Your task to perform on an android device: turn off data saver in the chrome app Image 0: 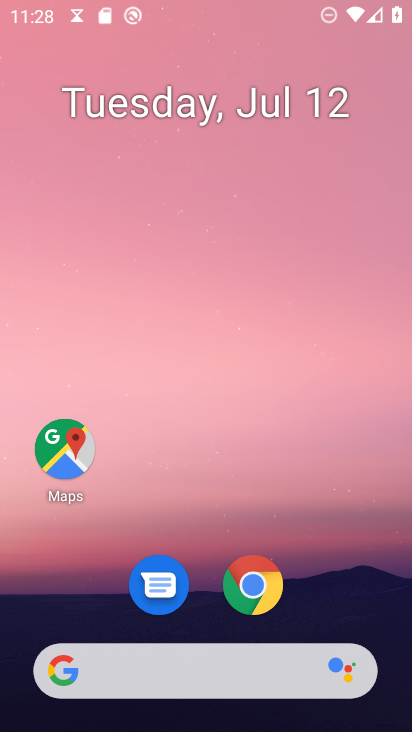
Step 0: press home button
Your task to perform on an android device: turn off data saver in the chrome app Image 1: 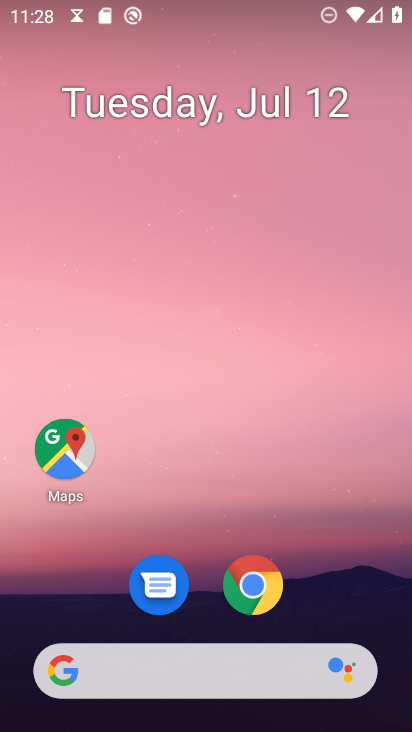
Step 1: click (259, 584)
Your task to perform on an android device: turn off data saver in the chrome app Image 2: 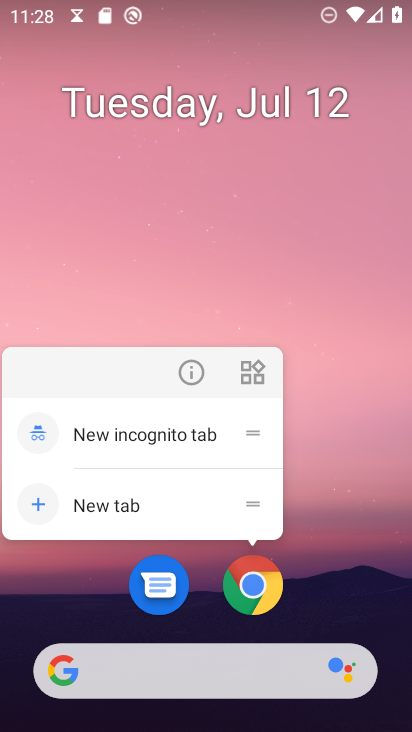
Step 2: click (259, 583)
Your task to perform on an android device: turn off data saver in the chrome app Image 3: 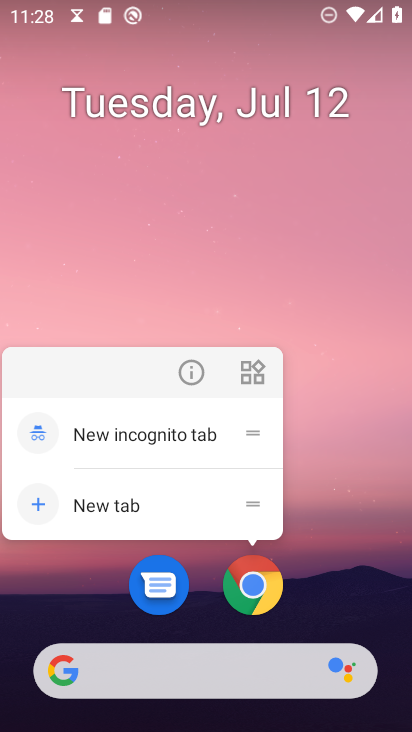
Step 3: click (242, 603)
Your task to perform on an android device: turn off data saver in the chrome app Image 4: 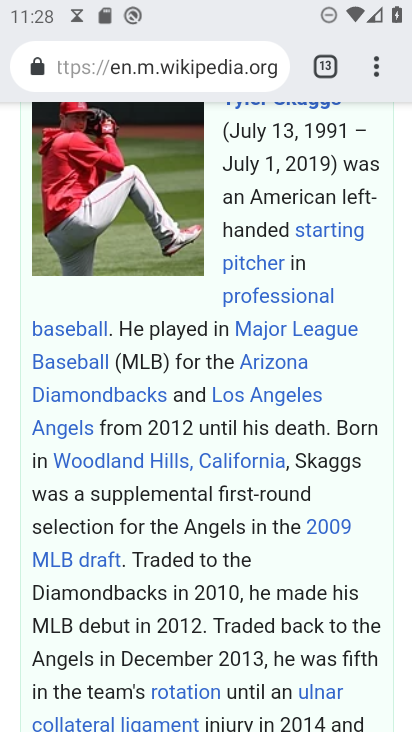
Step 4: drag from (373, 65) to (185, 587)
Your task to perform on an android device: turn off data saver in the chrome app Image 5: 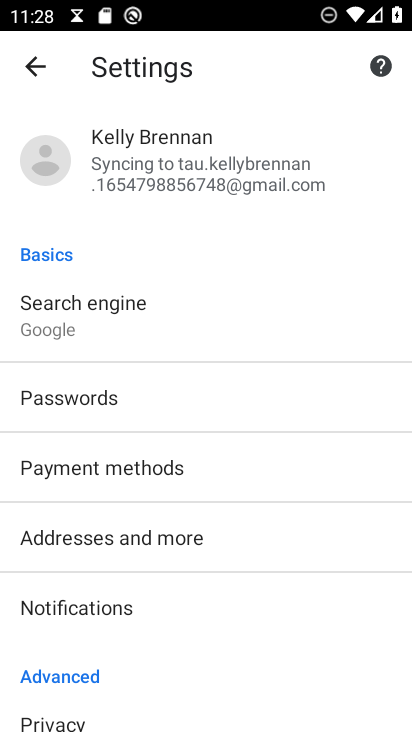
Step 5: drag from (157, 605) to (292, 239)
Your task to perform on an android device: turn off data saver in the chrome app Image 6: 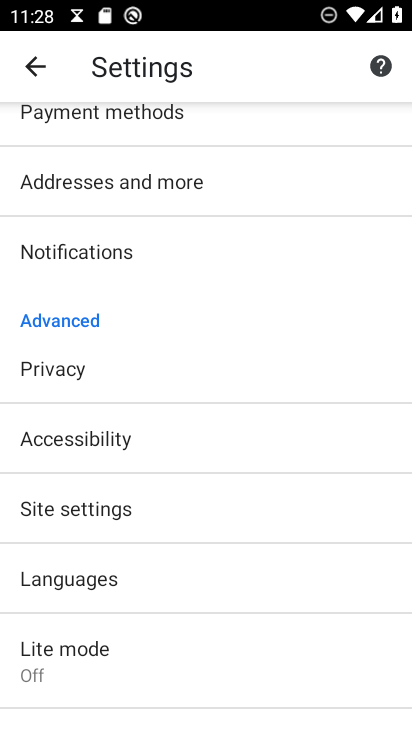
Step 6: click (82, 650)
Your task to perform on an android device: turn off data saver in the chrome app Image 7: 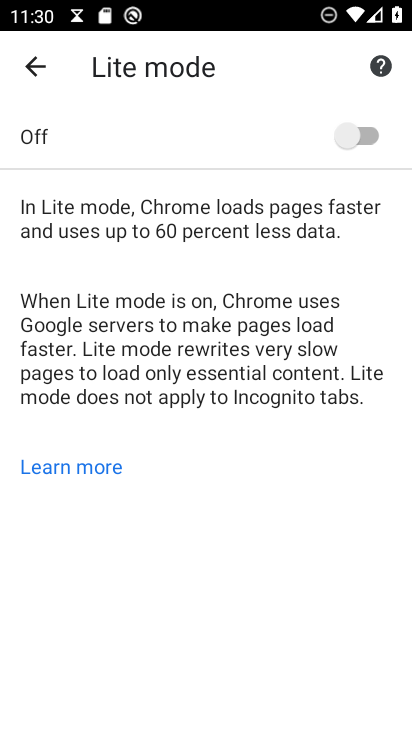
Step 7: task complete